Your task to perform on an android device: Open maps Image 0: 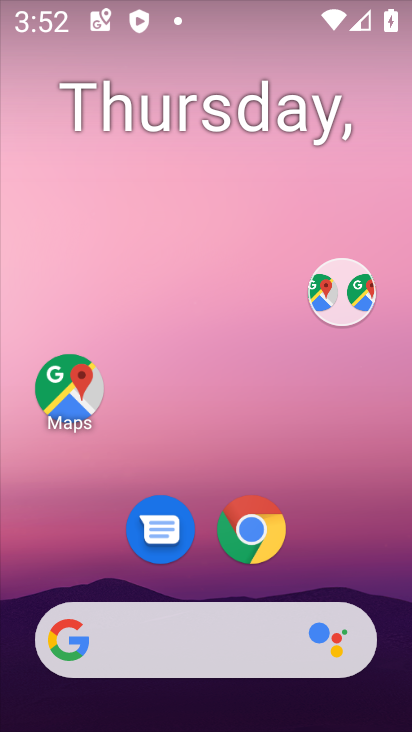
Step 0: click (56, 397)
Your task to perform on an android device: Open maps Image 1: 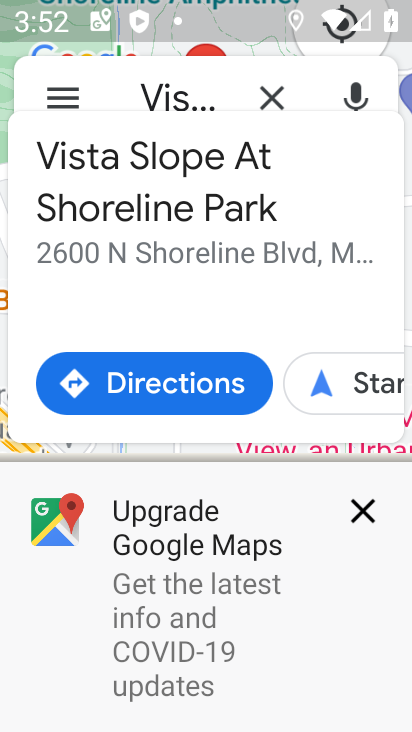
Step 1: task complete